Your task to perform on an android device: Show me recent news Image 0: 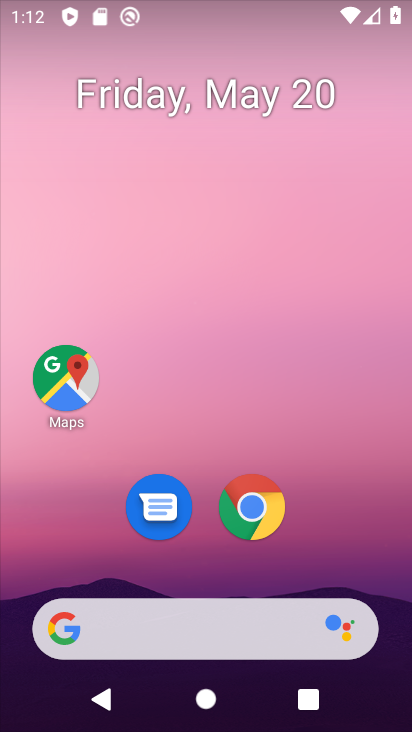
Step 0: drag from (237, 726) to (247, 74)
Your task to perform on an android device: Show me recent news Image 1: 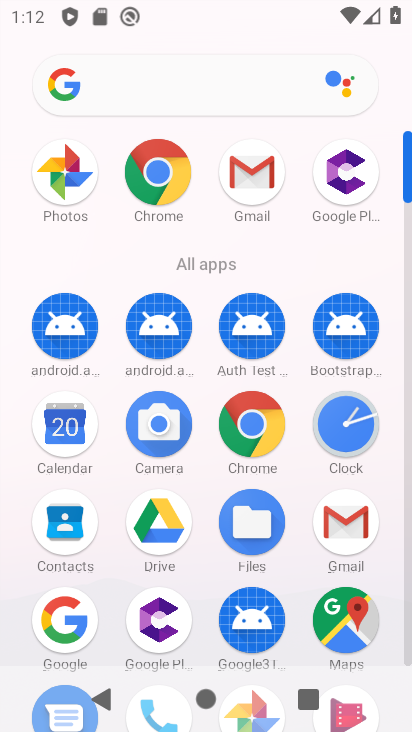
Step 1: click (74, 614)
Your task to perform on an android device: Show me recent news Image 2: 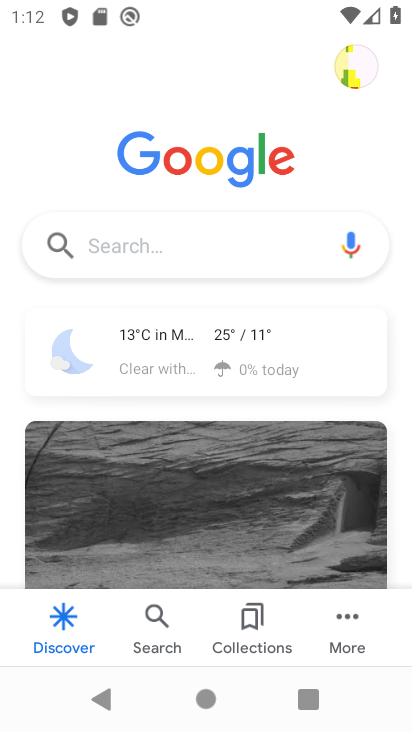
Step 2: task complete